Your task to perform on an android device: toggle location history Image 0: 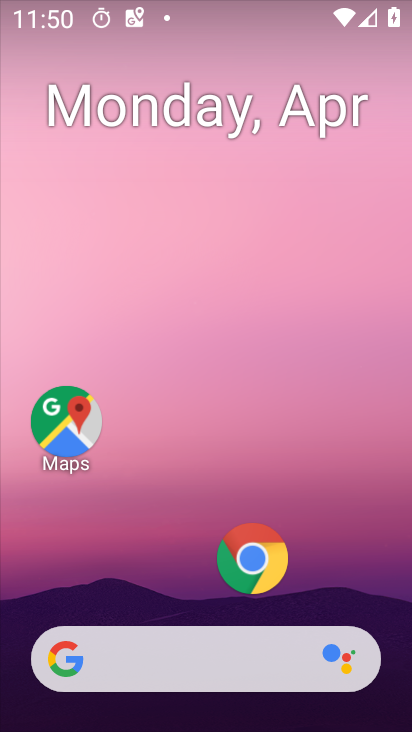
Step 0: drag from (145, 641) to (152, 248)
Your task to perform on an android device: toggle location history Image 1: 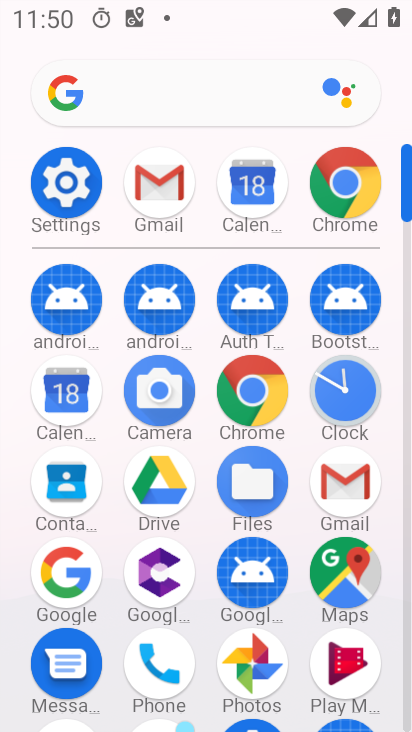
Step 1: drag from (221, 648) to (292, 222)
Your task to perform on an android device: toggle location history Image 2: 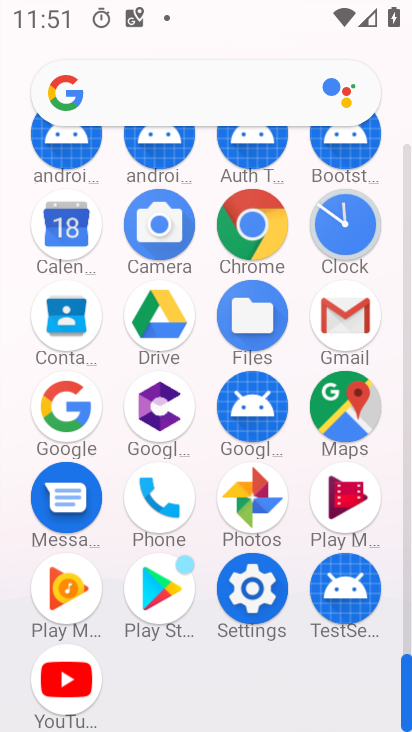
Step 2: click (252, 573)
Your task to perform on an android device: toggle location history Image 3: 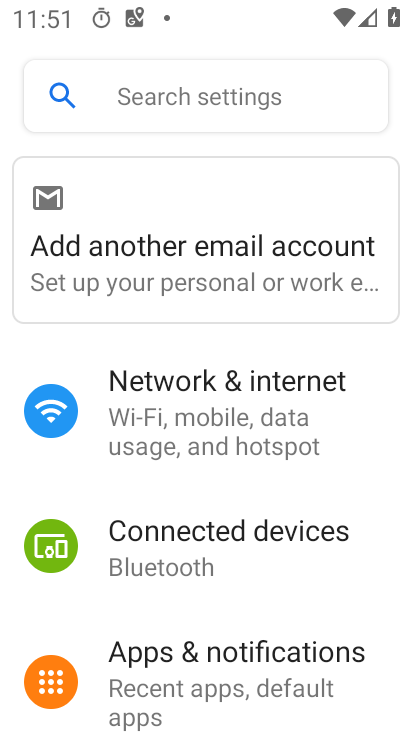
Step 3: drag from (244, 677) to (288, 325)
Your task to perform on an android device: toggle location history Image 4: 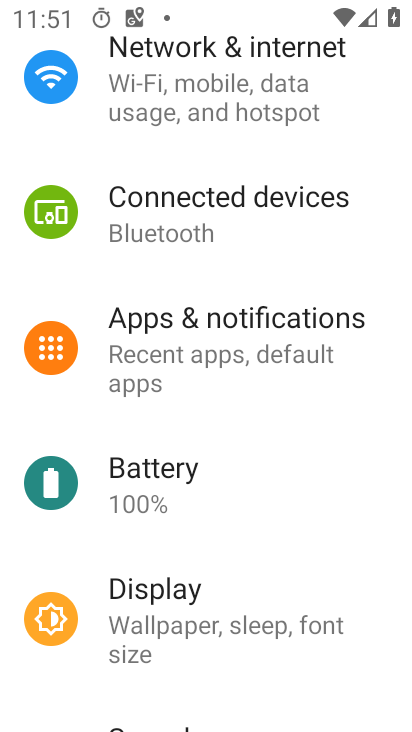
Step 4: drag from (173, 669) to (227, 413)
Your task to perform on an android device: toggle location history Image 5: 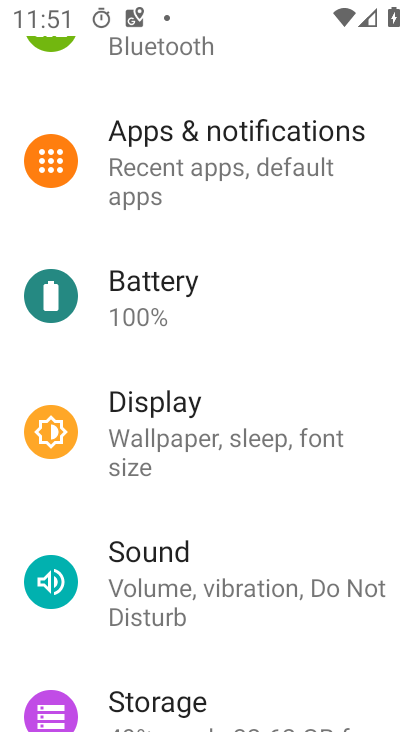
Step 5: drag from (174, 589) to (222, 215)
Your task to perform on an android device: toggle location history Image 6: 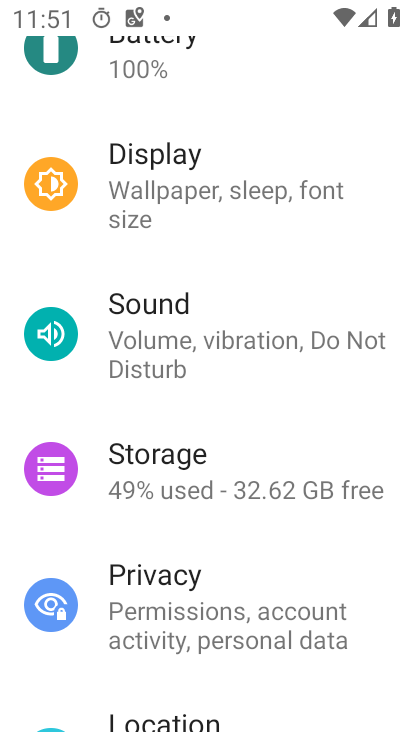
Step 6: drag from (207, 576) to (250, 258)
Your task to perform on an android device: toggle location history Image 7: 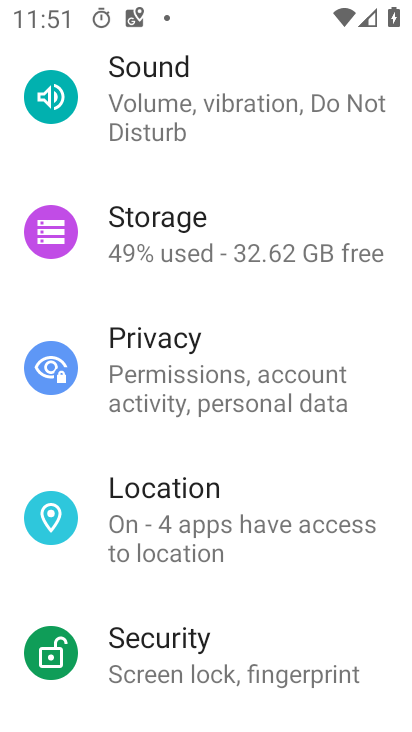
Step 7: click (194, 527)
Your task to perform on an android device: toggle location history Image 8: 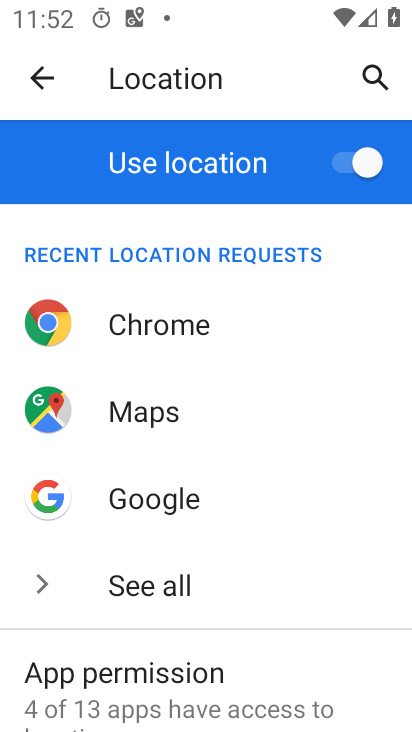
Step 8: click (337, 169)
Your task to perform on an android device: toggle location history Image 9: 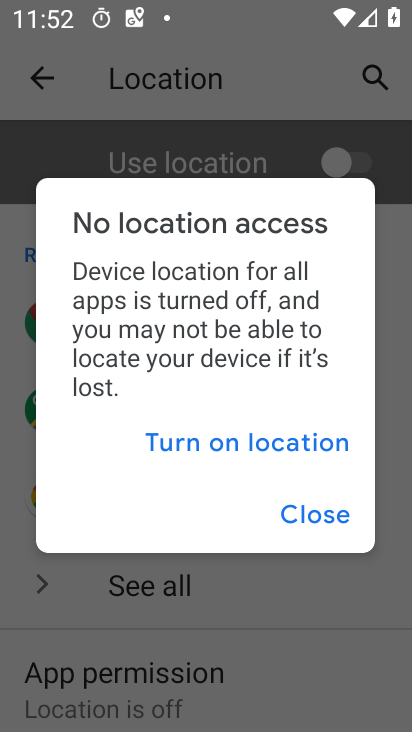
Step 9: task complete